Your task to perform on an android device: check storage Image 0: 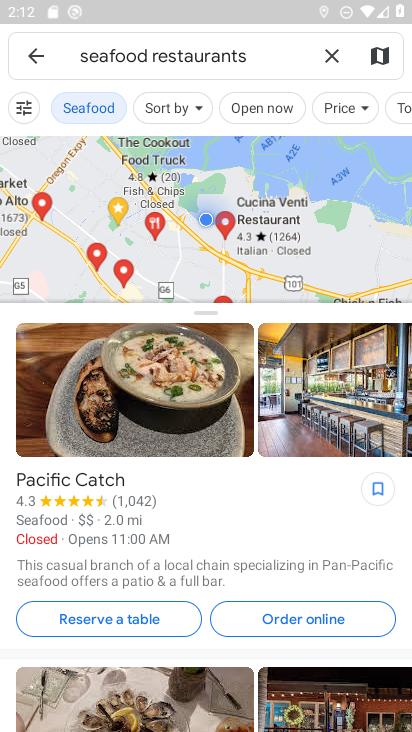
Step 0: press home button
Your task to perform on an android device: check storage Image 1: 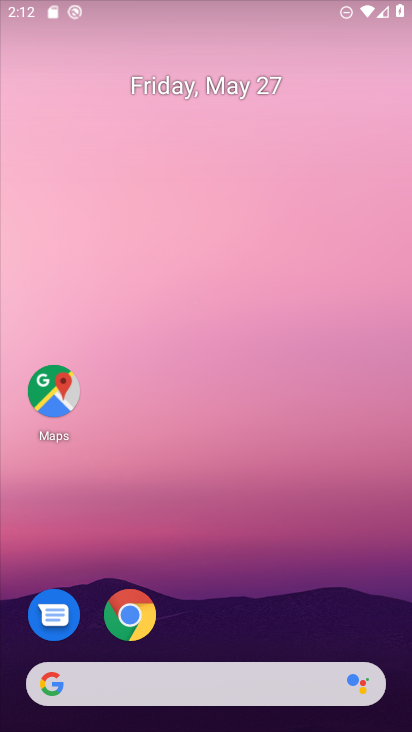
Step 1: drag from (210, 524) to (251, 58)
Your task to perform on an android device: check storage Image 2: 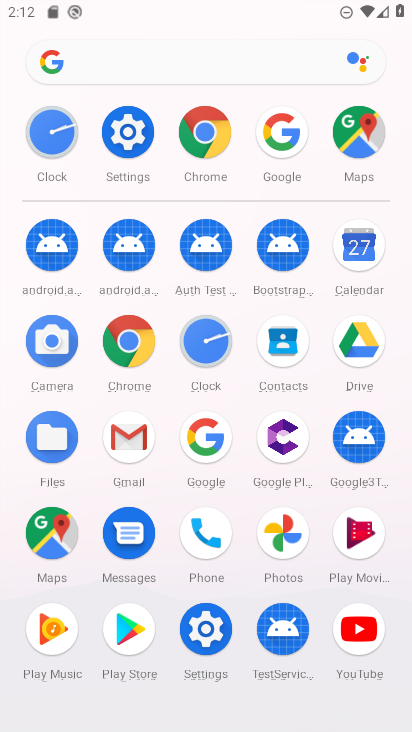
Step 2: click (204, 634)
Your task to perform on an android device: check storage Image 3: 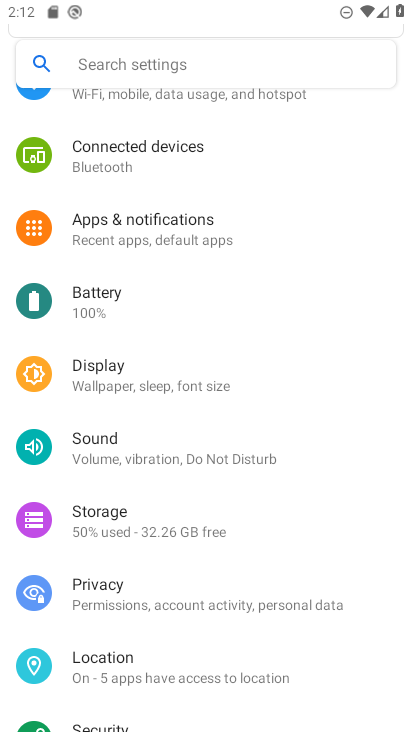
Step 3: click (117, 526)
Your task to perform on an android device: check storage Image 4: 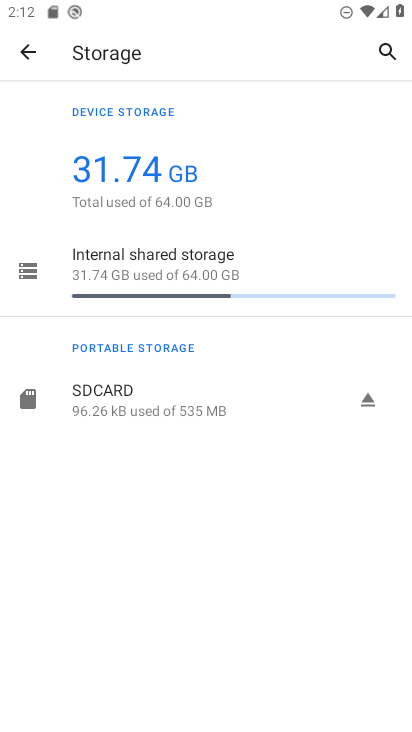
Step 4: click (220, 280)
Your task to perform on an android device: check storage Image 5: 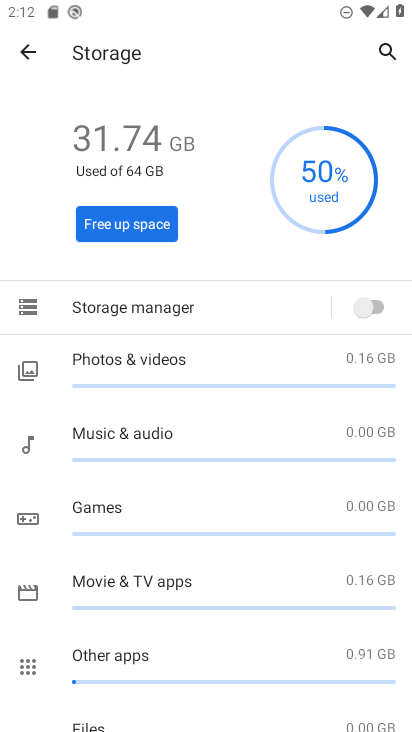
Step 5: click (293, 189)
Your task to perform on an android device: check storage Image 6: 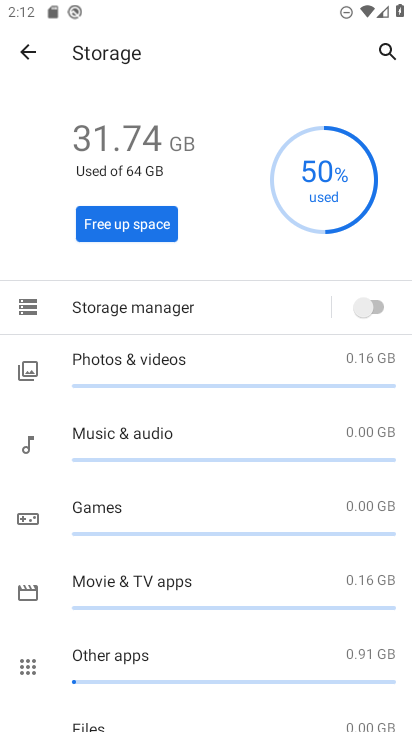
Step 6: click (171, 166)
Your task to perform on an android device: check storage Image 7: 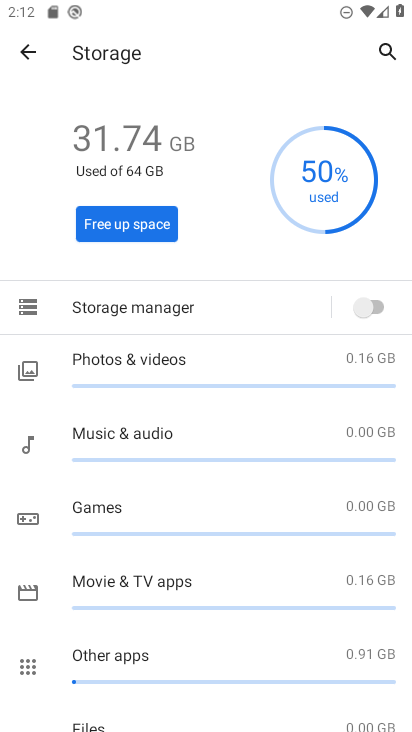
Step 7: task complete